Your task to perform on an android device: Check out the new ikea catalog. Image 0: 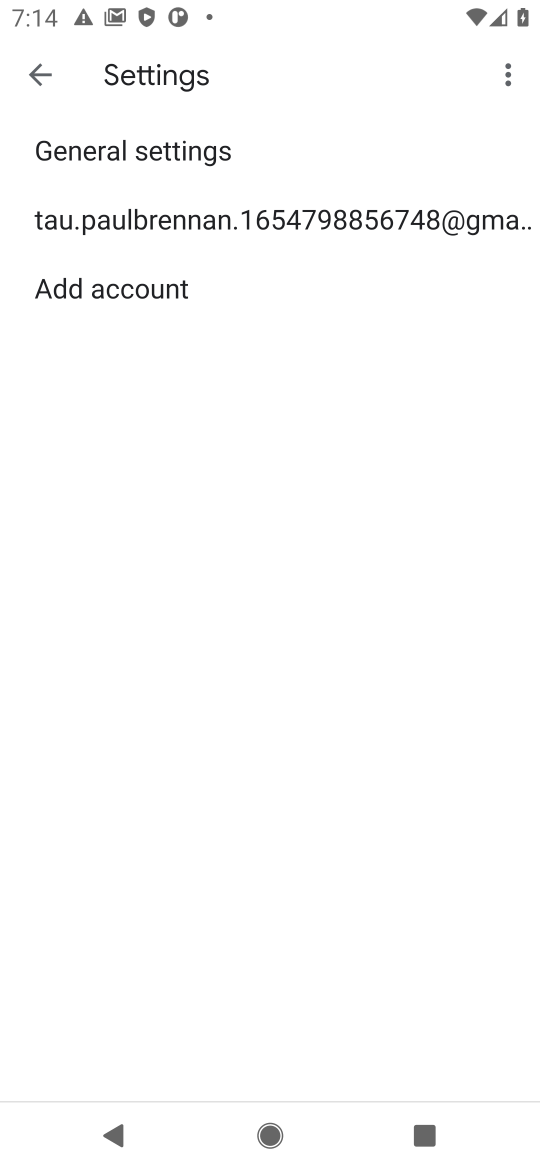
Step 0: press home button
Your task to perform on an android device: Check out the new ikea catalog. Image 1: 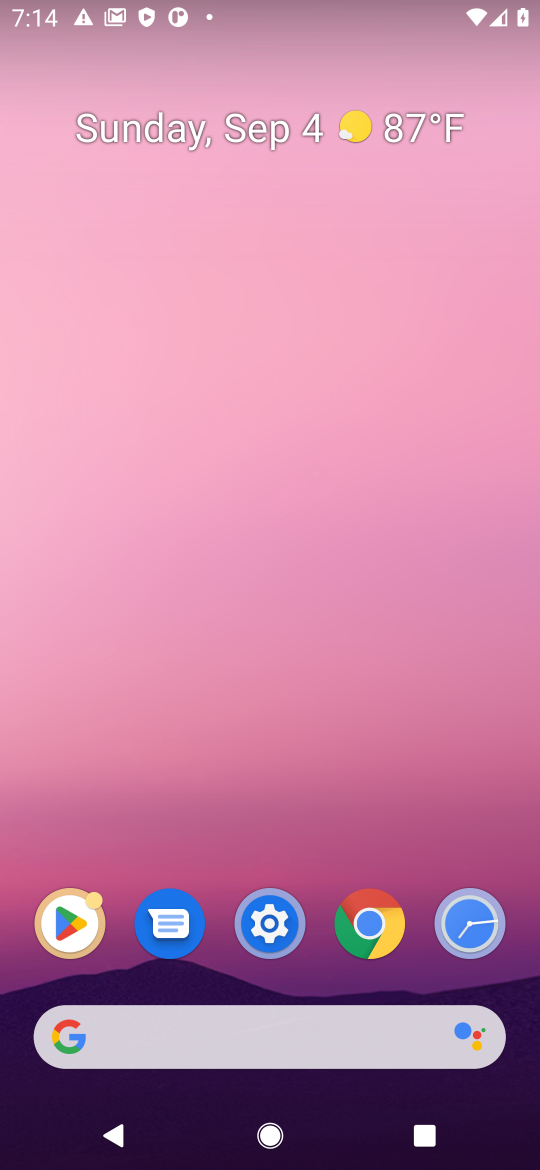
Step 1: click (339, 1033)
Your task to perform on an android device: Check out the new ikea catalog. Image 2: 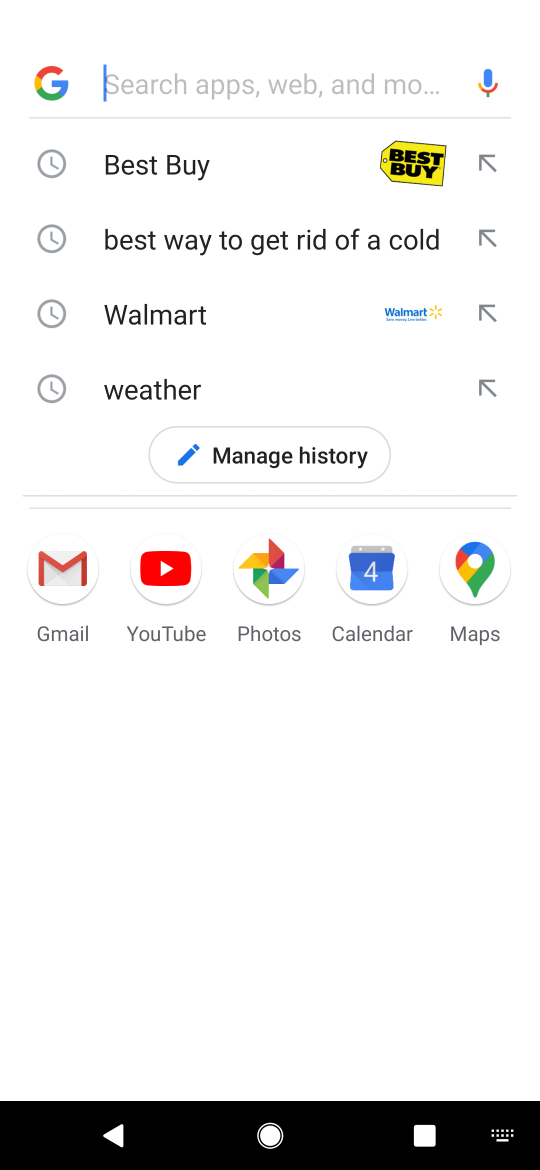
Step 2: press enter
Your task to perform on an android device: Check out the new ikea catalog. Image 3: 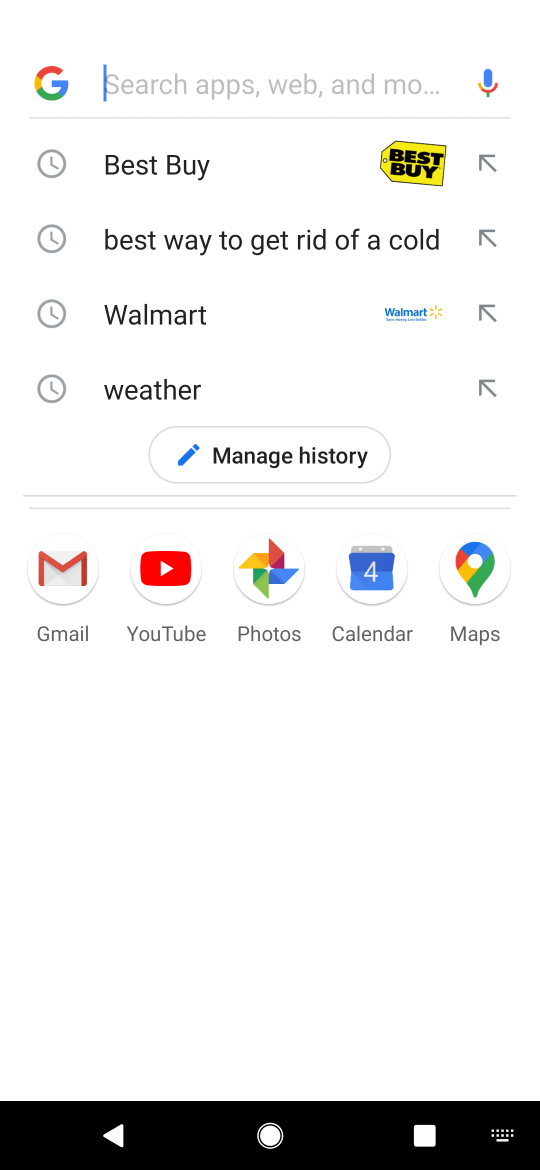
Step 3: type "ikea"
Your task to perform on an android device: Check out the new ikea catalog. Image 4: 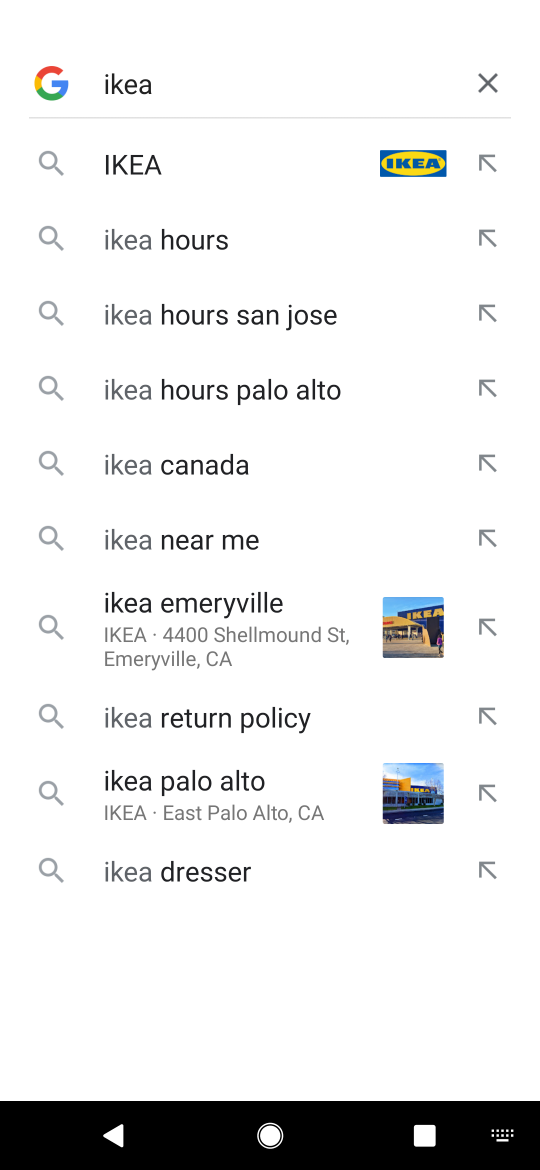
Step 4: click (139, 155)
Your task to perform on an android device: Check out the new ikea catalog. Image 5: 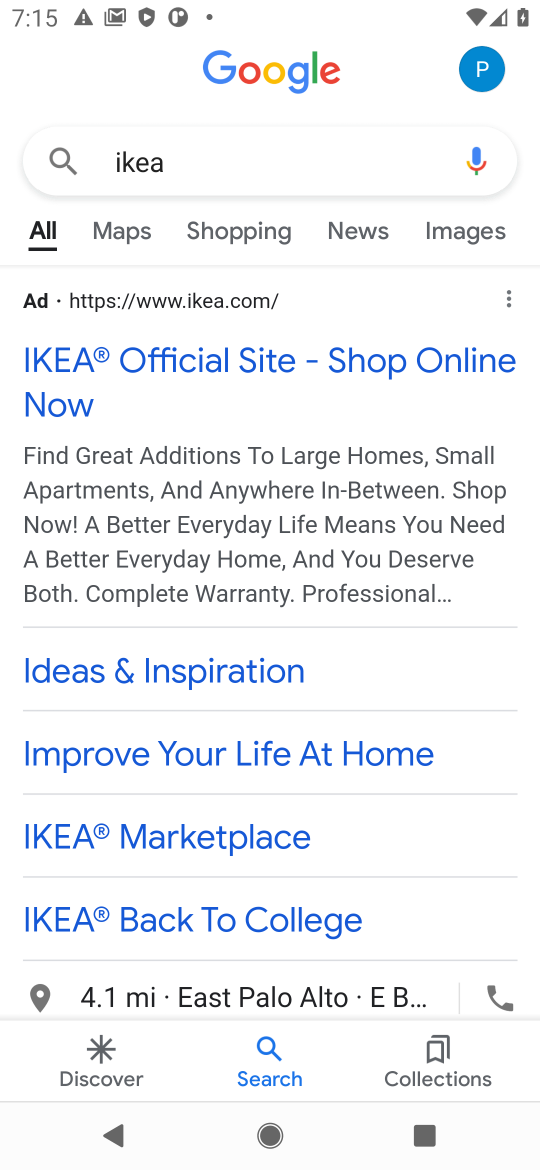
Step 5: click (318, 363)
Your task to perform on an android device: Check out the new ikea catalog. Image 6: 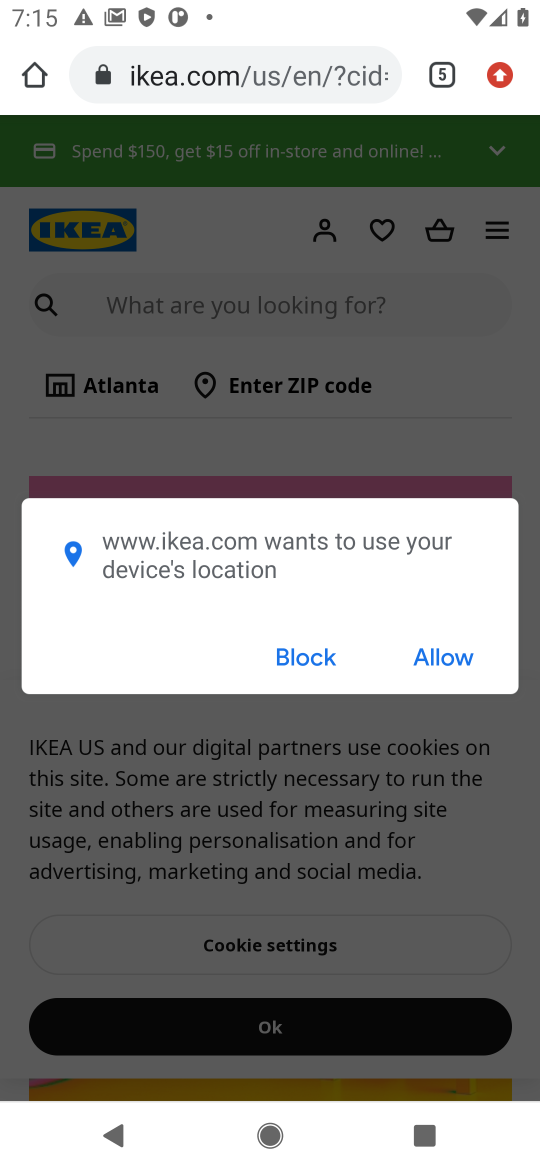
Step 6: click (340, 652)
Your task to perform on an android device: Check out the new ikea catalog. Image 7: 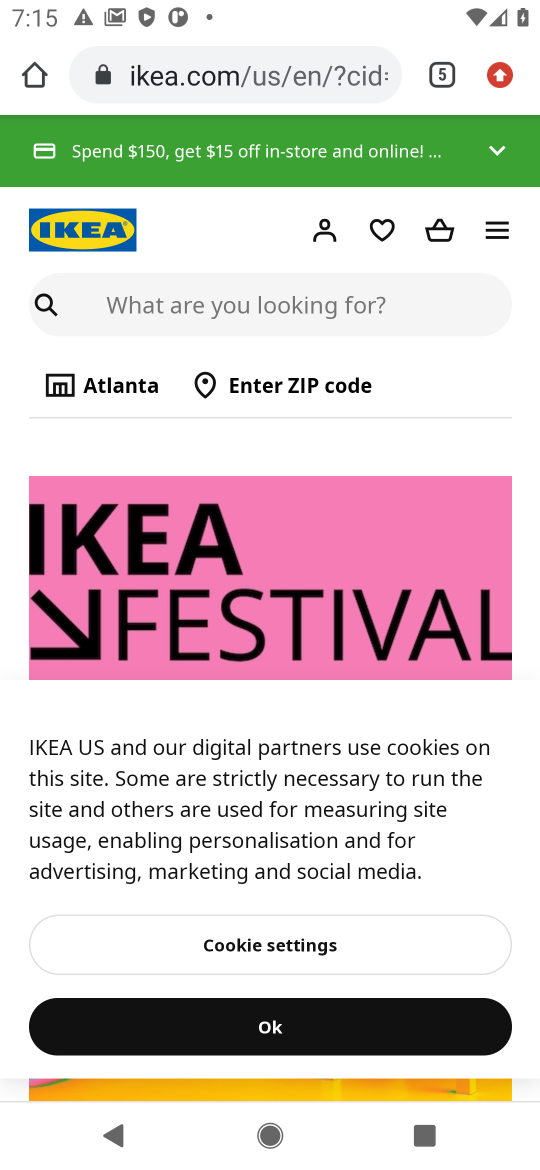
Step 7: click (281, 315)
Your task to perform on an android device: Check out the new ikea catalog. Image 8: 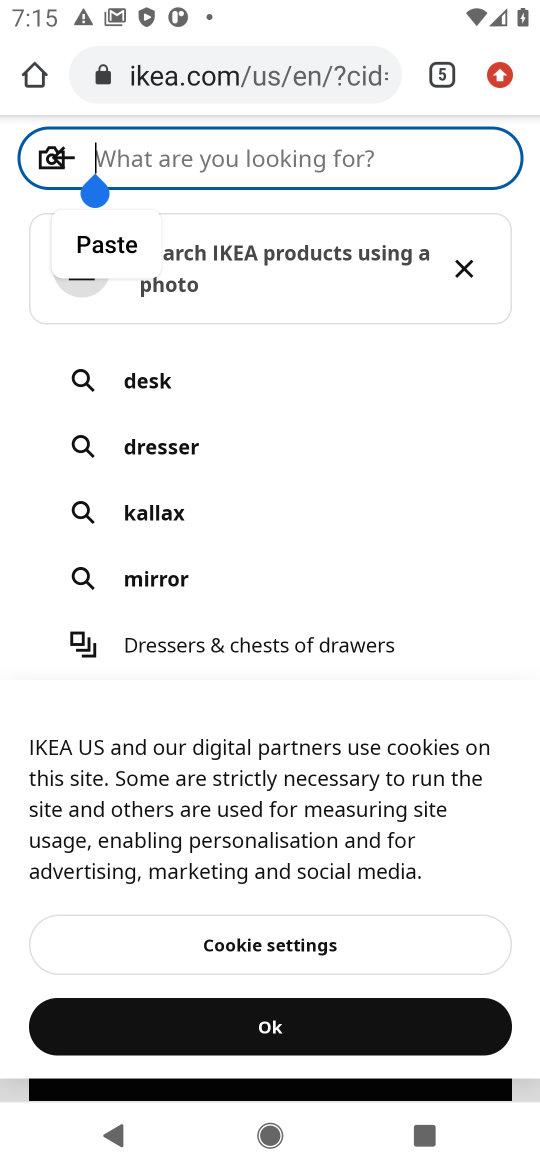
Step 8: press enter
Your task to perform on an android device: Check out the new ikea catalog. Image 9: 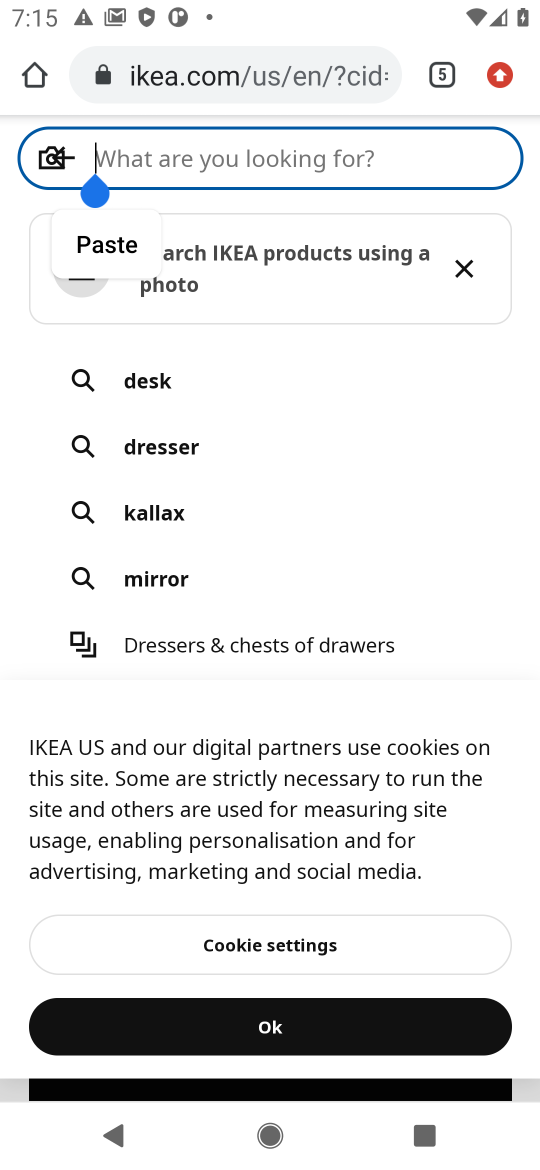
Step 9: type "catalog"
Your task to perform on an android device: Check out the new ikea catalog. Image 10: 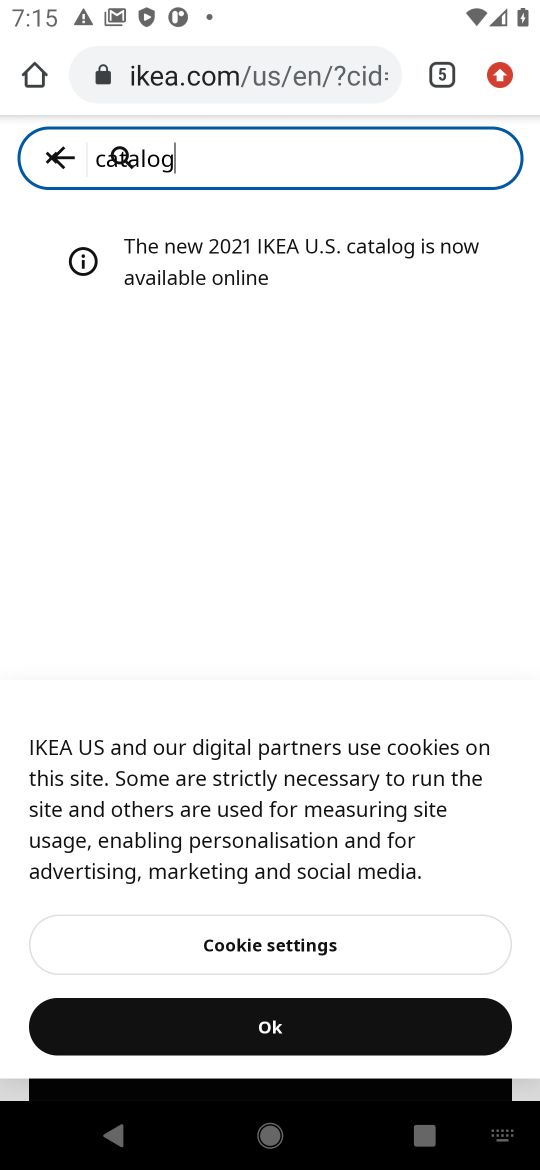
Step 10: click (52, 150)
Your task to perform on an android device: Check out the new ikea catalog. Image 11: 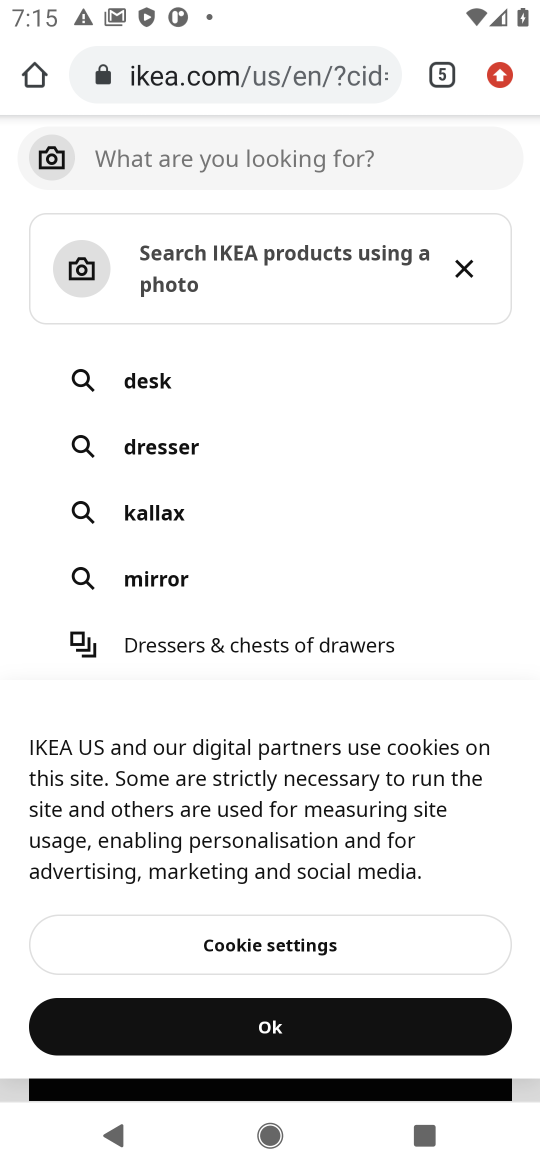
Step 11: click (439, 1032)
Your task to perform on an android device: Check out the new ikea catalog. Image 12: 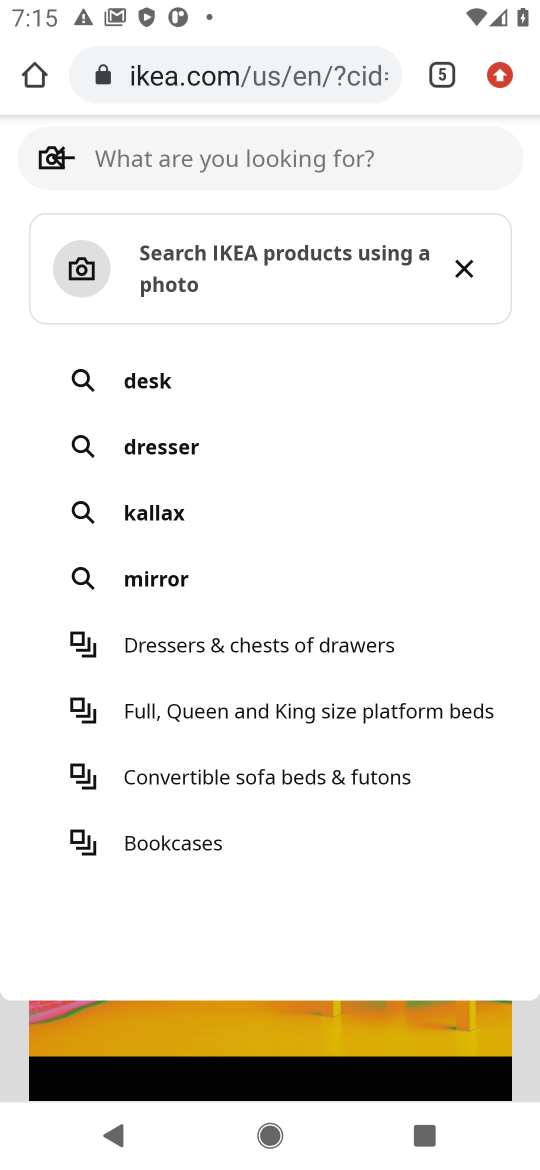
Step 12: click (466, 260)
Your task to perform on an android device: Check out the new ikea catalog. Image 13: 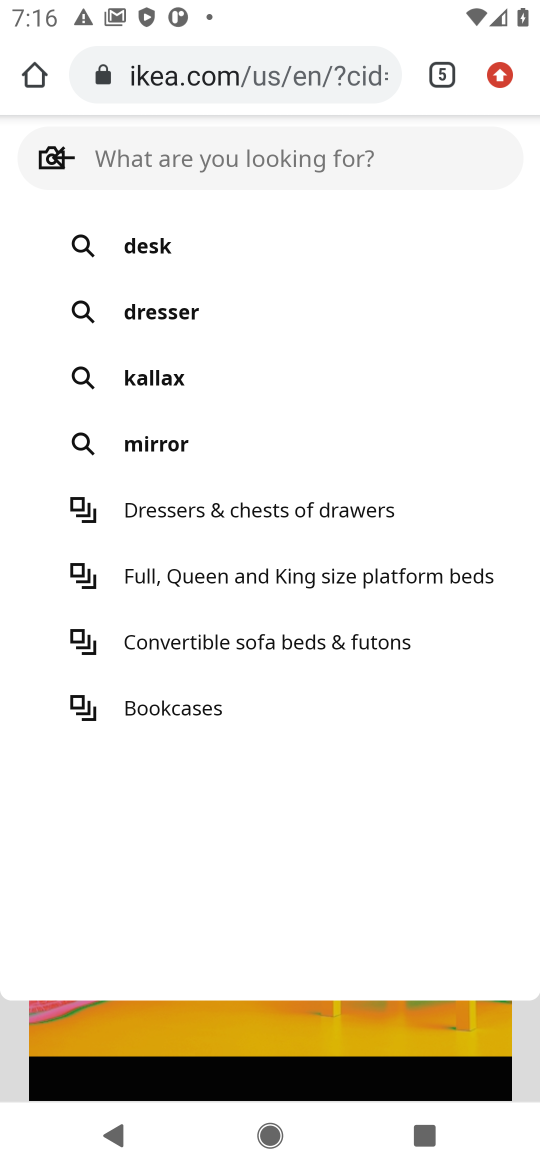
Step 13: click (316, 161)
Your task to perform on an android device: Check out the new ikea catalog. Image 14: 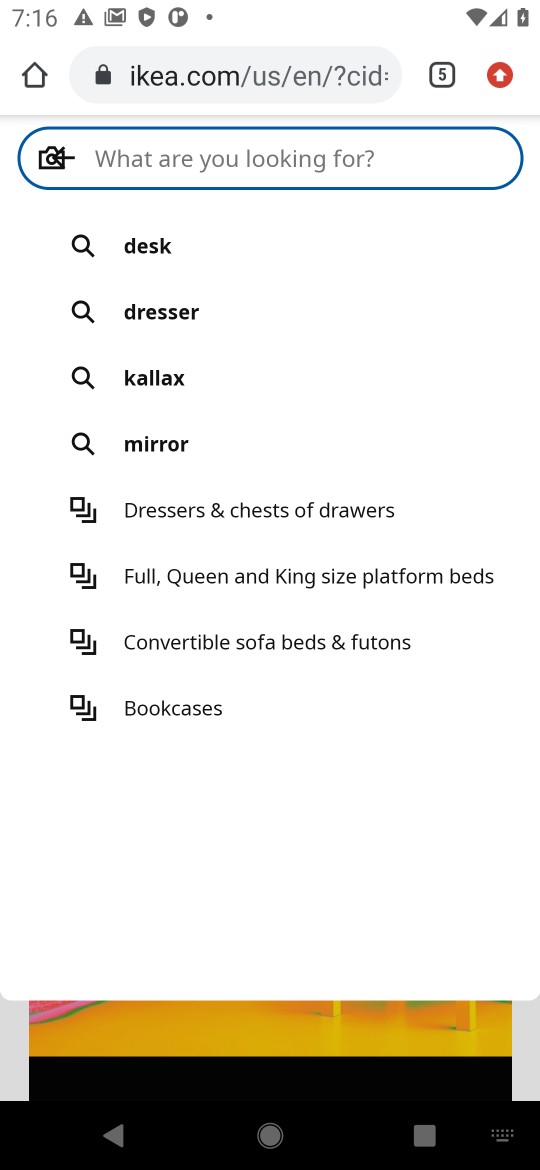
Step 14: type "catalog"
Your task to perform on an android device: Check out the new ikea catalog. Image 15: 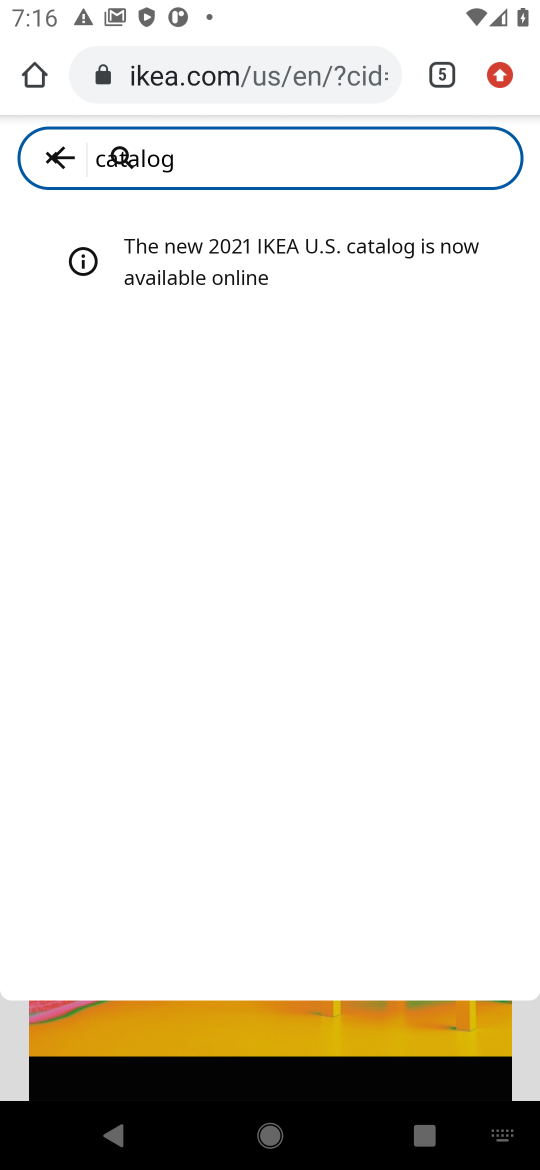
Step 15: click (53, 154)
Your task to perform on an android device: Check out the new ikea catalog. Image 16: 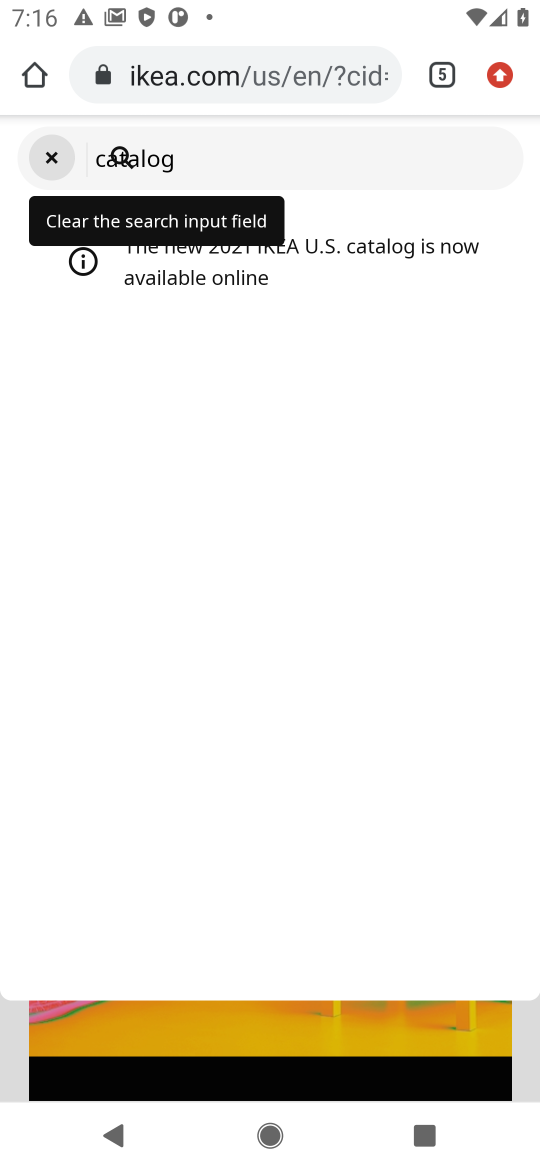
Step 16: task complete